Your task to perform on an android device: Turn off the flashlight Image 0: 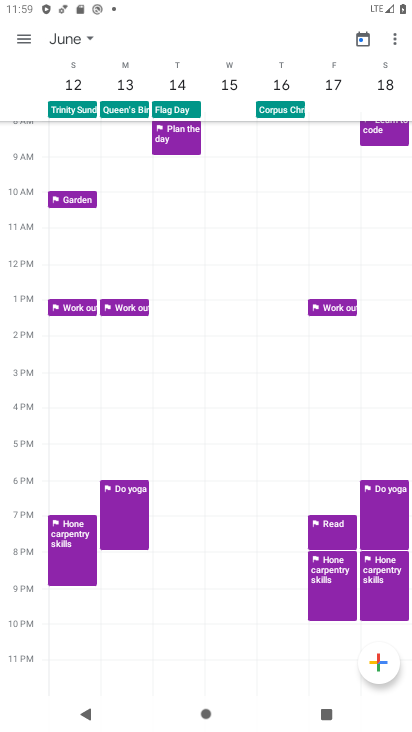
Step 0: press home button
Your task to perform on an android device: Turn off the flashlight Image 1: 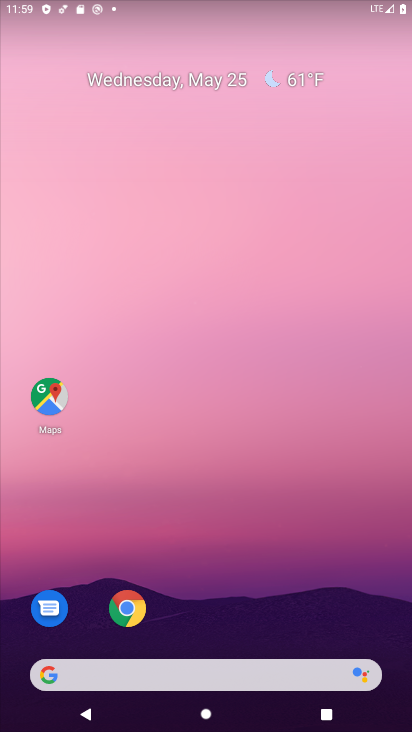
Step 1: drag from (207, 14) to (213, 435)
Your task to perform on an android device: Turn off the flashlight Image 2: 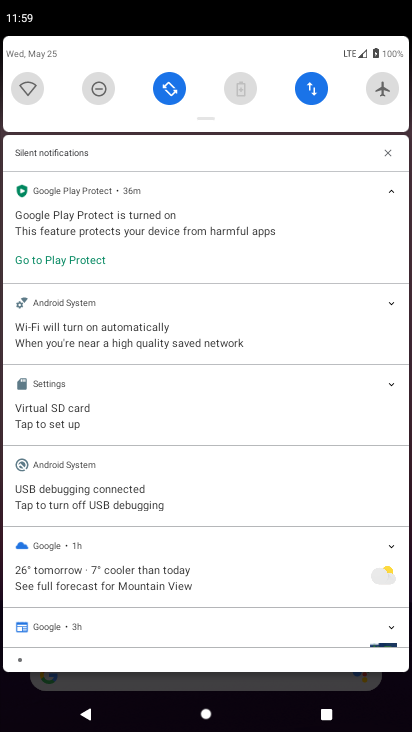
Step 2: drag from (206, 126) to (210, 441)
Your task to perform on an android device: Turn off the flashlight Image 3: 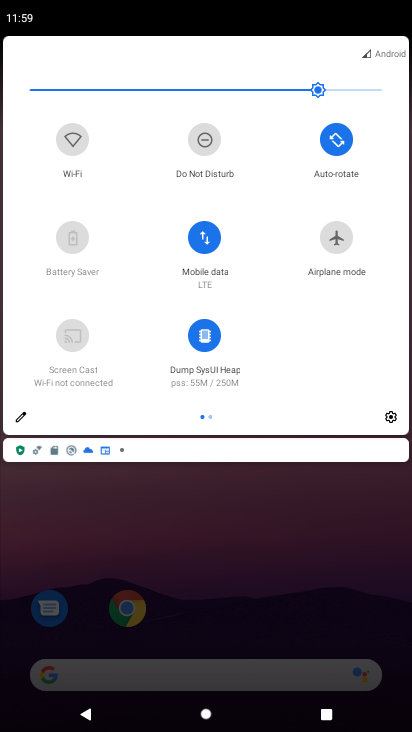
Step 3: click (22, 410)
Your task to perform on an android device: Turn off the flashlight Image 4: 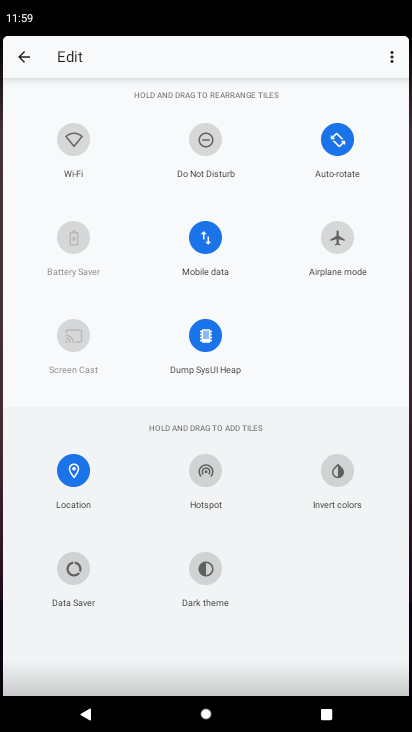
Step 4: click (83, 241)
Your task to perform on an android device: Turn off the flashlight Image 5: 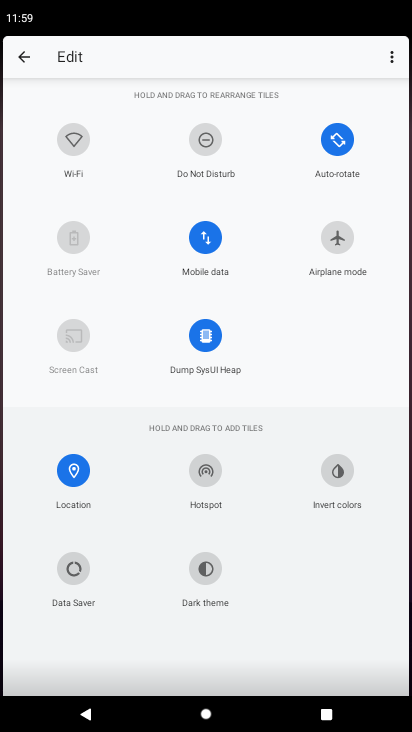
Step 5: task complete